Your task to perform on an android device: change the clock display to show seconds Image 0: 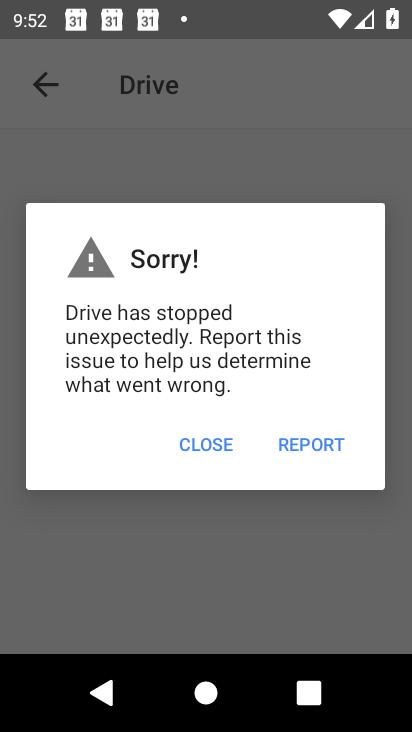
Step 0: press home button
Your task to perform on an android device: change the clock display to show seconds Image 1: 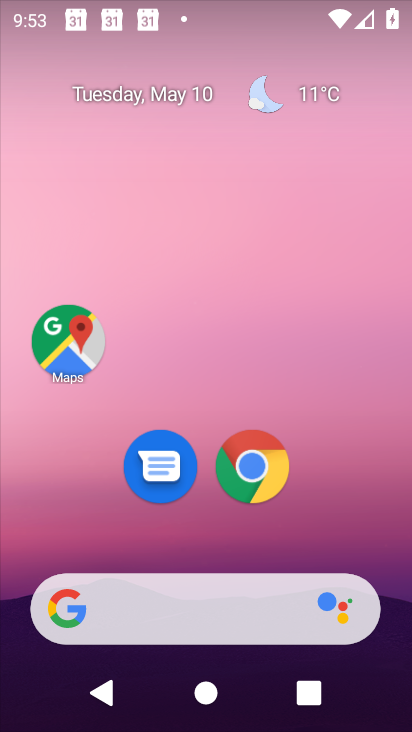
Step 1: drag from (345, 500) to (367, 6)
Your task to perform on an android device: change the clock display to show seconds Image 2: 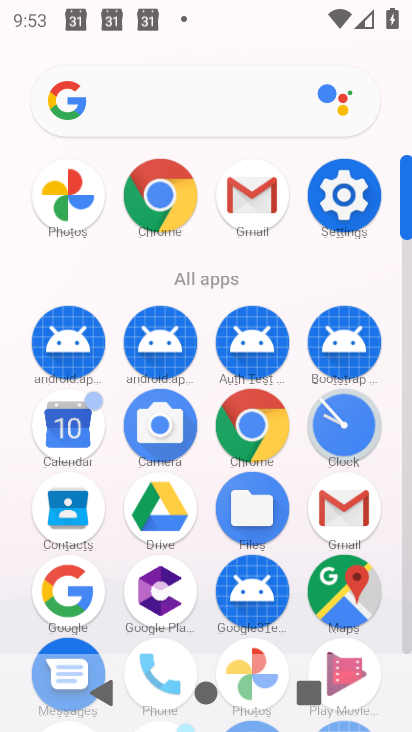
Step 2: click (352, 427)
Your task to perform on an android device: change the clock display to show seconds Image 3: 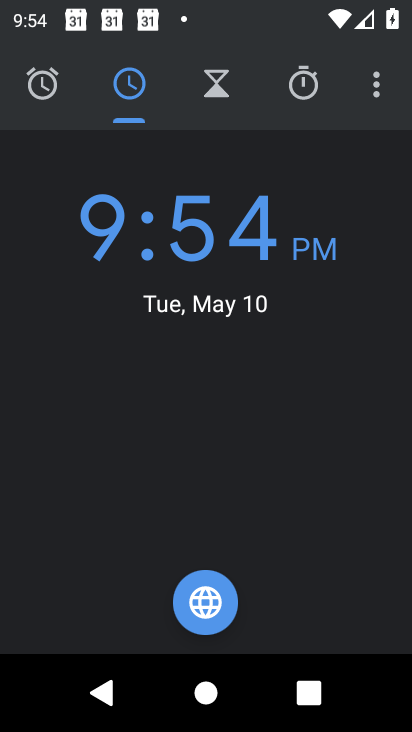
Step 3: click (374, 76)
Your task to perform on an android device: change the clock display to show seconds Image 4: 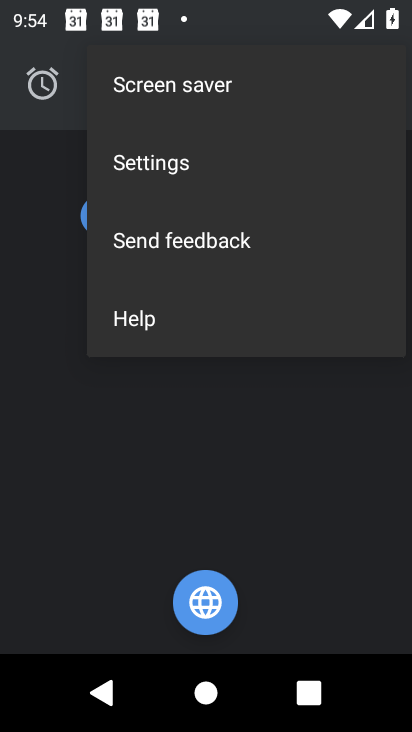
Step 4: click (179, 155)
Your task to perform on an android device: change the clock display to show seconds Image 5: 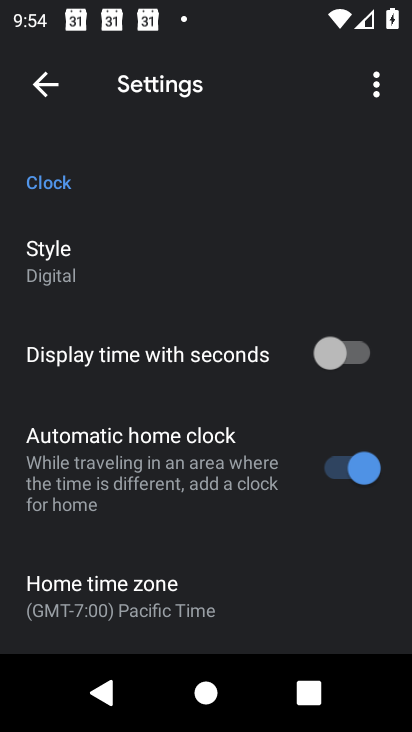
Step 5: click (337, 331)
Your task to perform on an android device: change the clock display to show seconds Image 6: 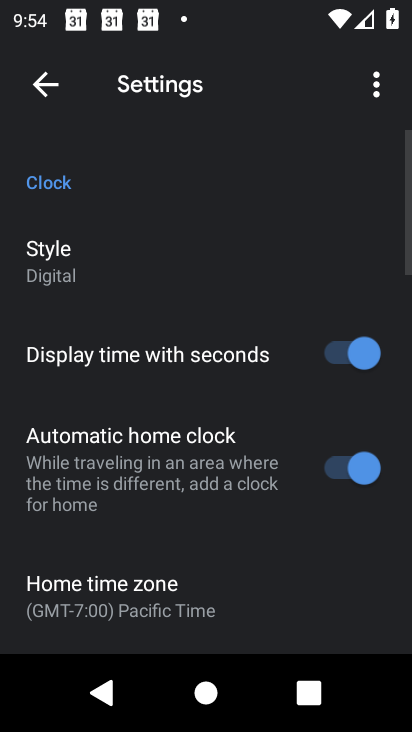
Step 6: task complete